Your task to perform on an android device: Find coffee shops on Maps Image 0: 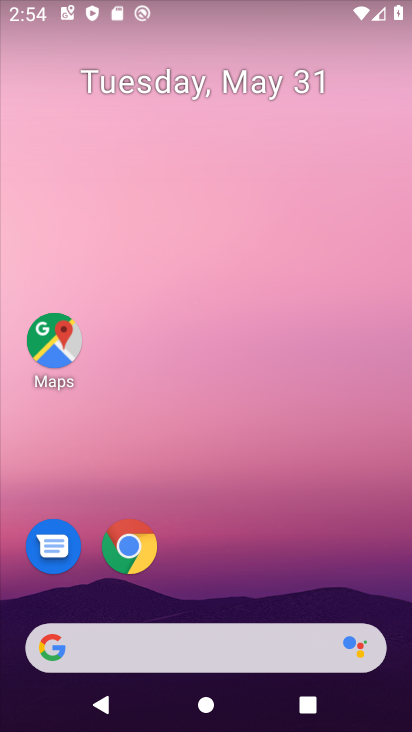
Step 0: click (49, 338)
Your task to perform on an android device: Find coffee shops on Maps Image 1: 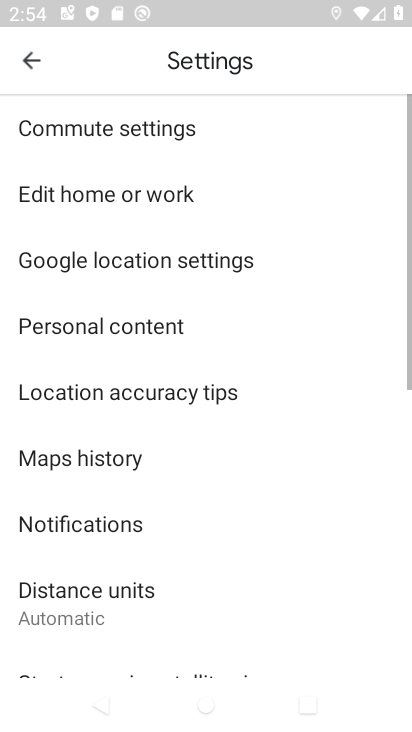
Step 1: click (33, 50)
Your task to perform on an android device: Find coffee shops on Maps Image 2: 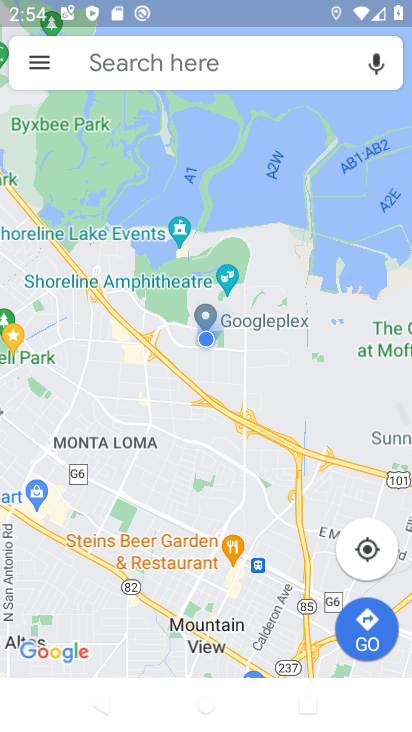
Step 2: click (95, 61)
Your task to perform on an android device: Find coffee shops on Maps Image 3: 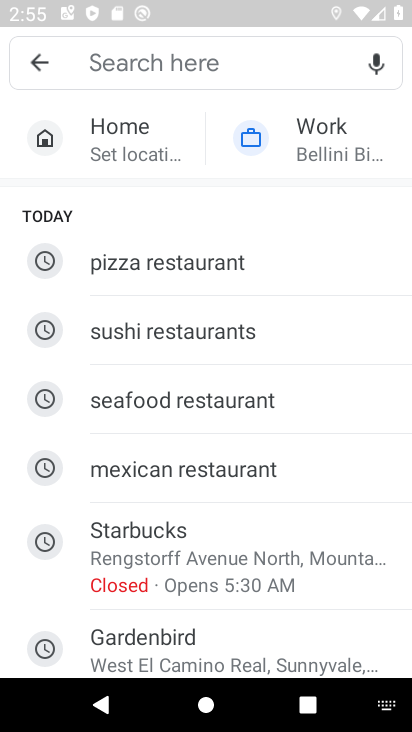
Step 3: type "coffee"
Your task to perform on an android device: Find coffee shops on Maps Image 4: 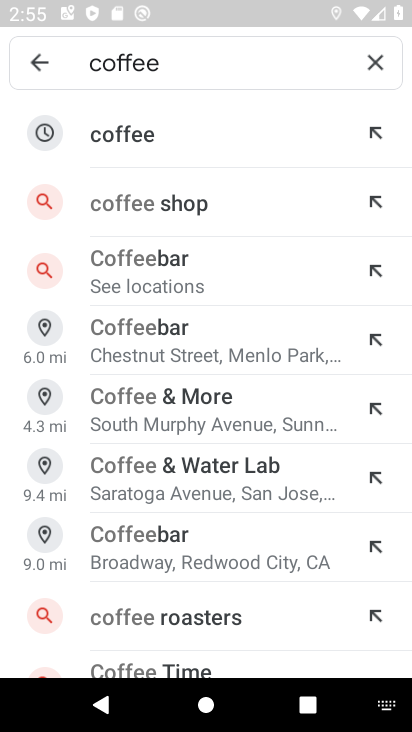
Step 4: click (161, 184)
Your task to perform on an android device: Find coffee shops on Maps Image 5: 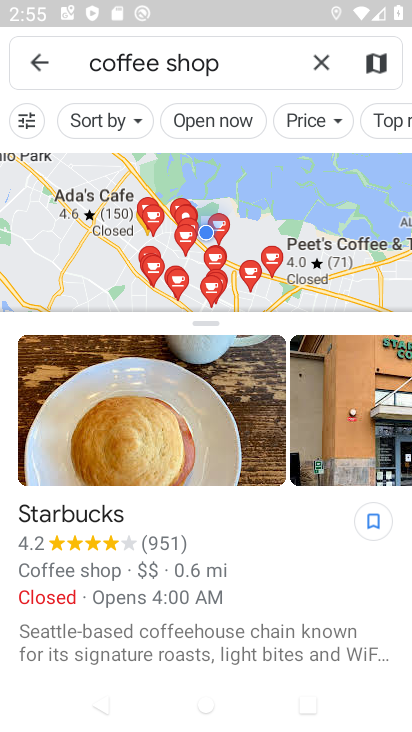
Step 5: task complete